Your task to perform on an android device: Search for "logitech g pro" on amazon.com, select the first entry, add it to the cart, then select checkout. Image 0: 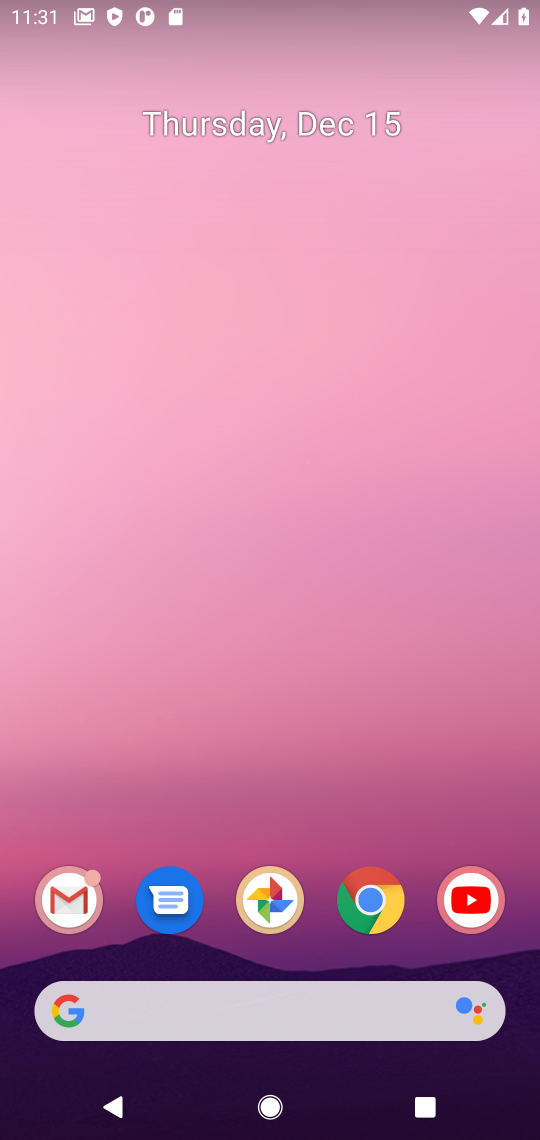
Step 0: click (375, 890)
Your task to perform on an android device: Search for "logitech g pro" on amazon.com, select the first entry, add it to the cart, then select checkout. Image 1: 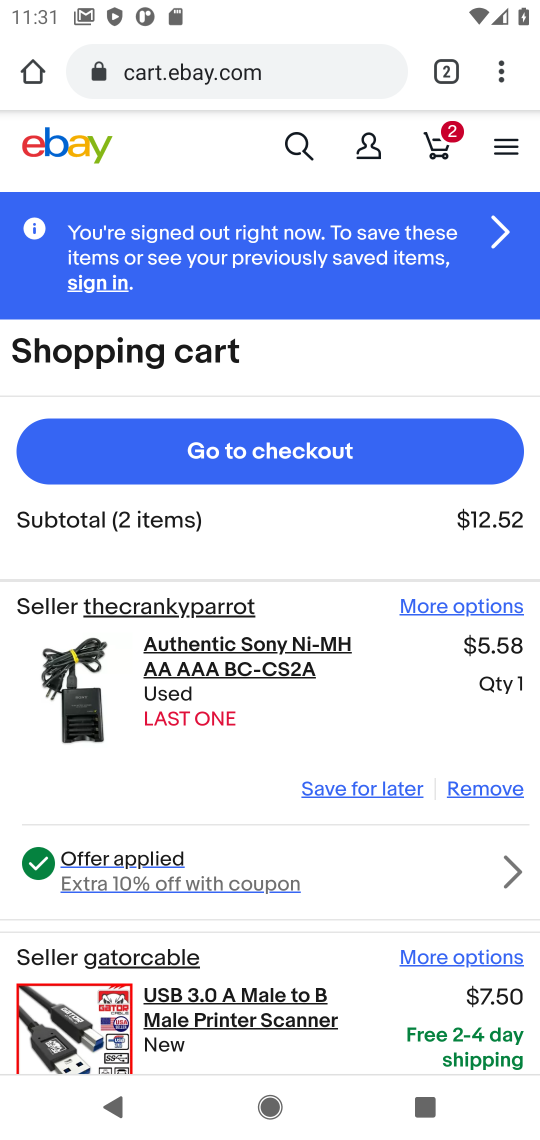
Step 1: click (307, 63)
Your task to perform on an android device: Search for "logitech g pro" on amazon.com, select the first entry, add it to the cart, then select checkout. Image 2: 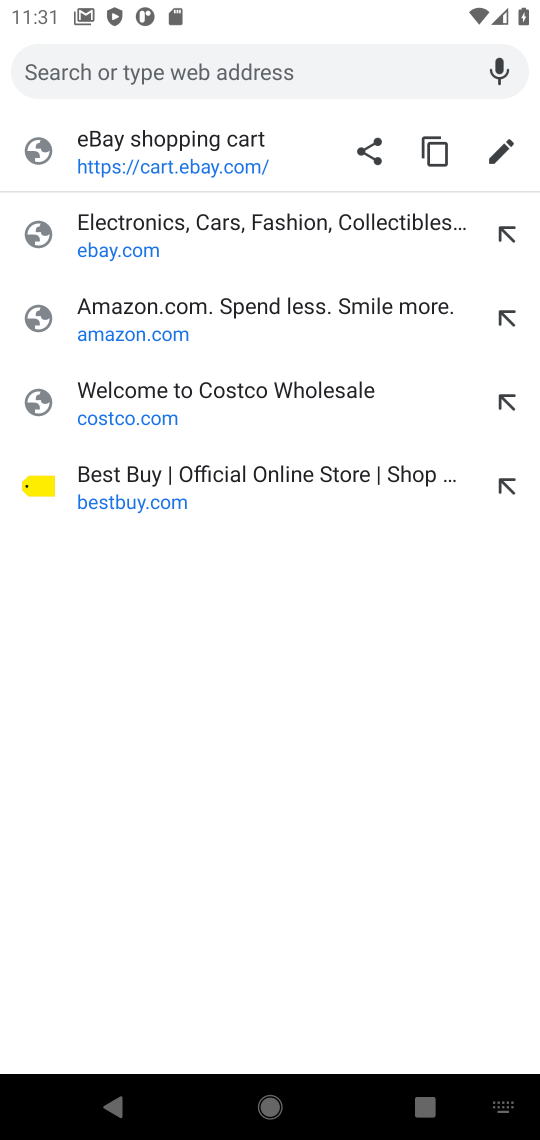
Step 2: click (181, 296)
Your task to perform on an android device: Search for "logitech g pro" on amazon.com, select the first entry, add it to the cart, then select checkout. Image 3: 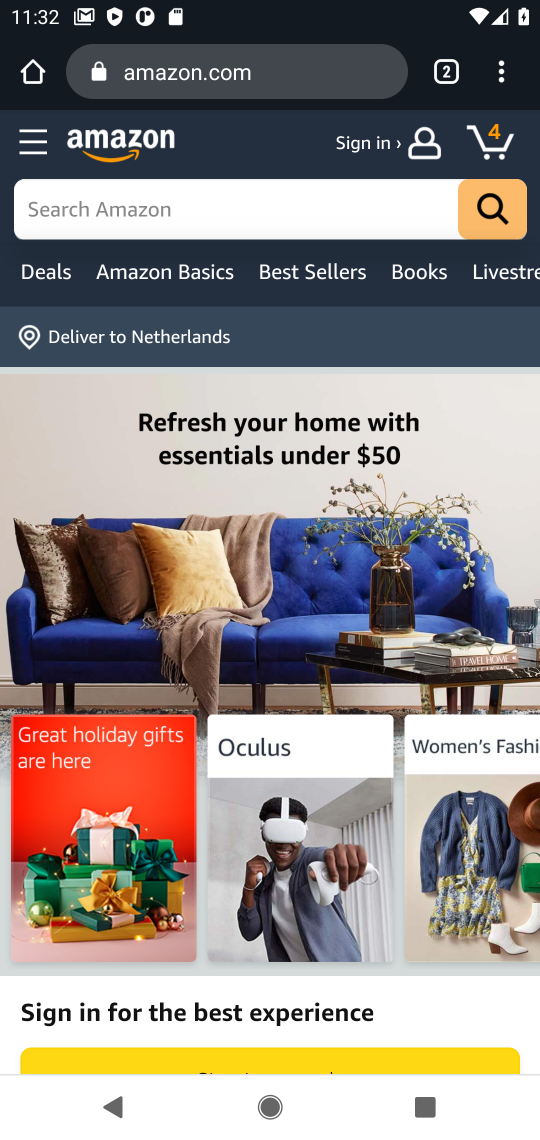
Step 3: click (353, 197)
Your task to perform on an android device: Search for "logitech g pro" on amazon.com, select the first entry, add it to the cart, then select checkout. Image 4: 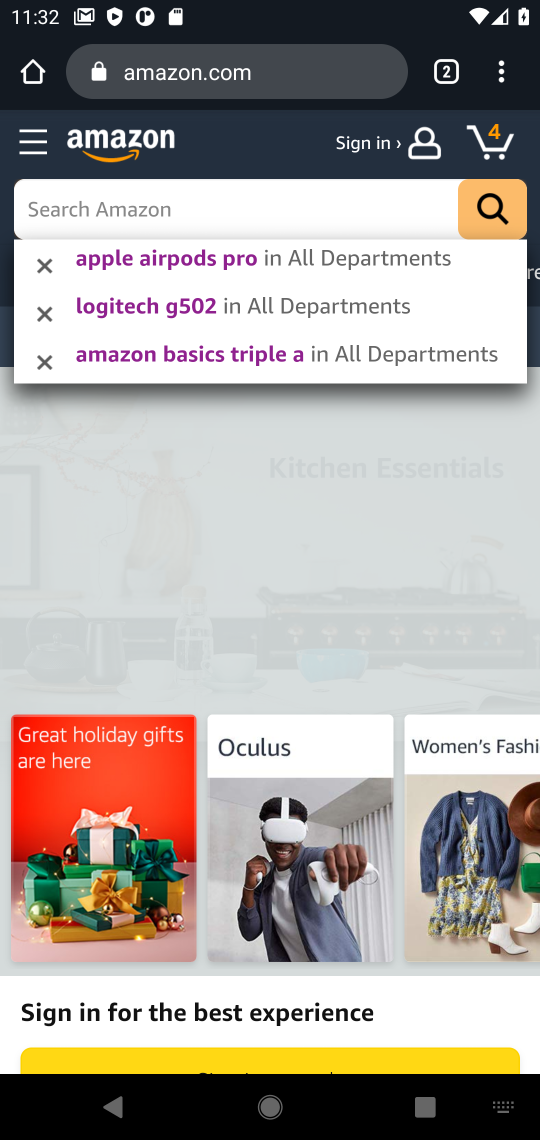
Step 4: type "logitech g pro"
Your task to perform on an android device: Search for "logitech g pro" on amazon.com, select the first entry, add it to the cart, then select checkout. Image 5: 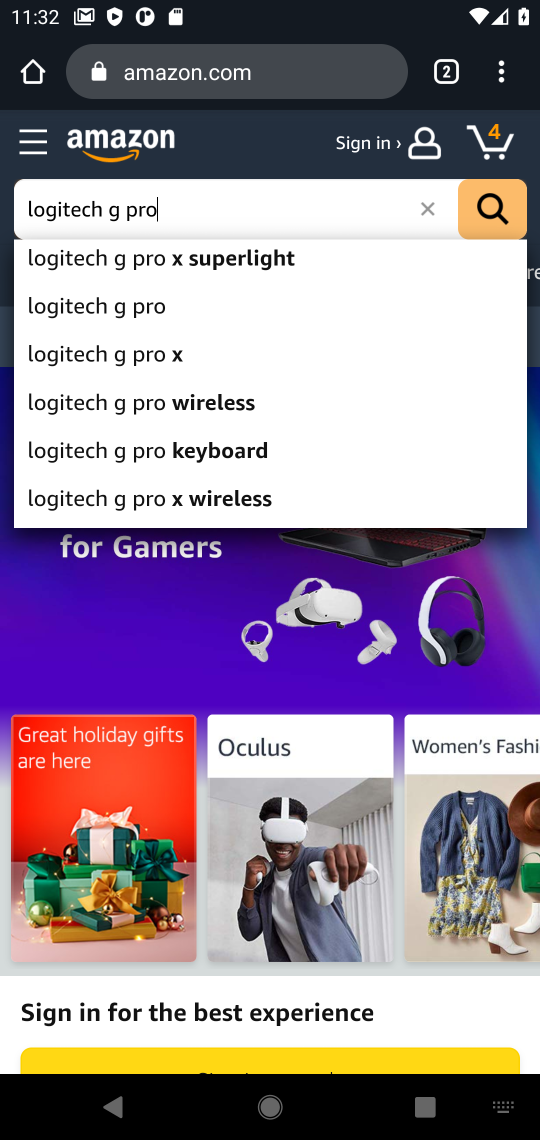
Step 5: click (150, 301)
Your task to perform on an android device: Search for "logitech g pro" on amazon.com, select the first entry, add it to the cart, then select checkout. Image 6: 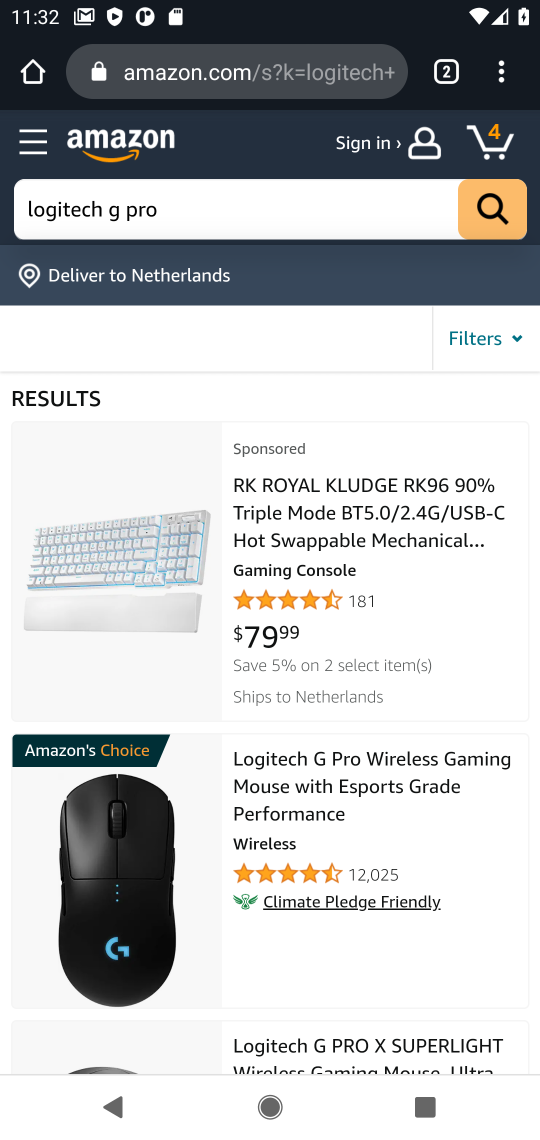
Step 6: click (126, 862)
Your task to perform on an android device: Search for "logitech g pro" on amazon.com, select the first entry, add it to the cart, then select checkout. Image 7: 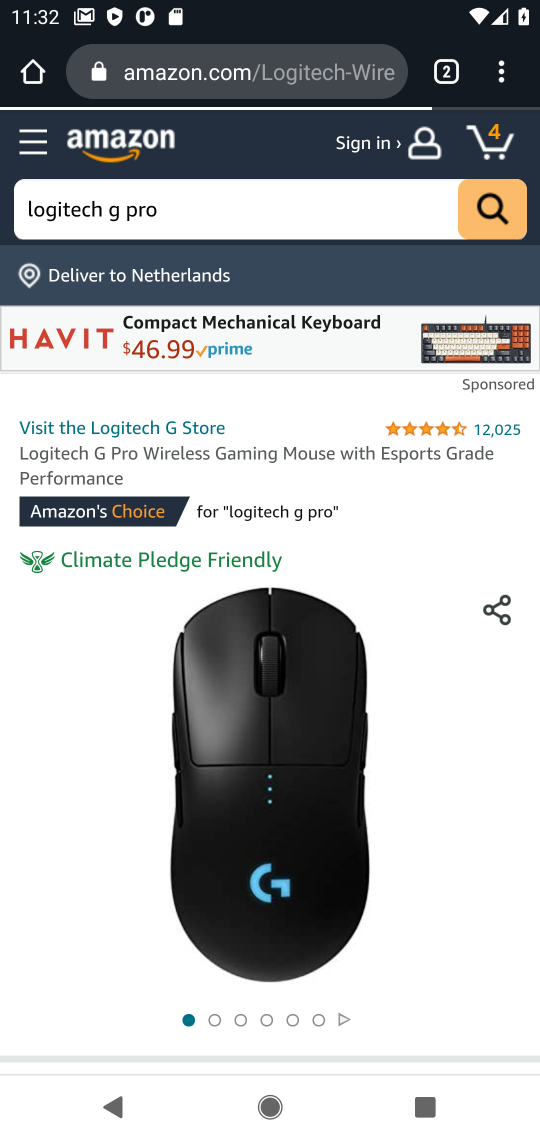
Step 7: drag from (452, 827) to (475, 649)
Your task to perform on an android device: Search for "logitech g pro" on amazon.com, select the first entry, add it to the cart, then select checkout. Image 8: 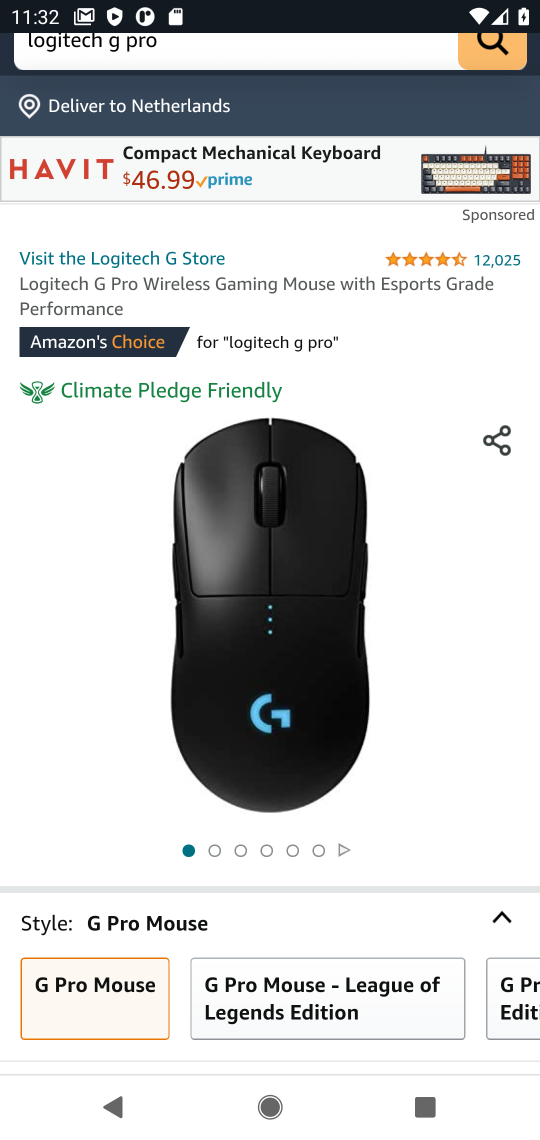
Step 8: drag from (470, 682) to (397, 296)
Your task to perform on an android device: Search for "logitech g pro" on amazon.com, select the first entry, add it to the cart, then select checkout. Image 9: 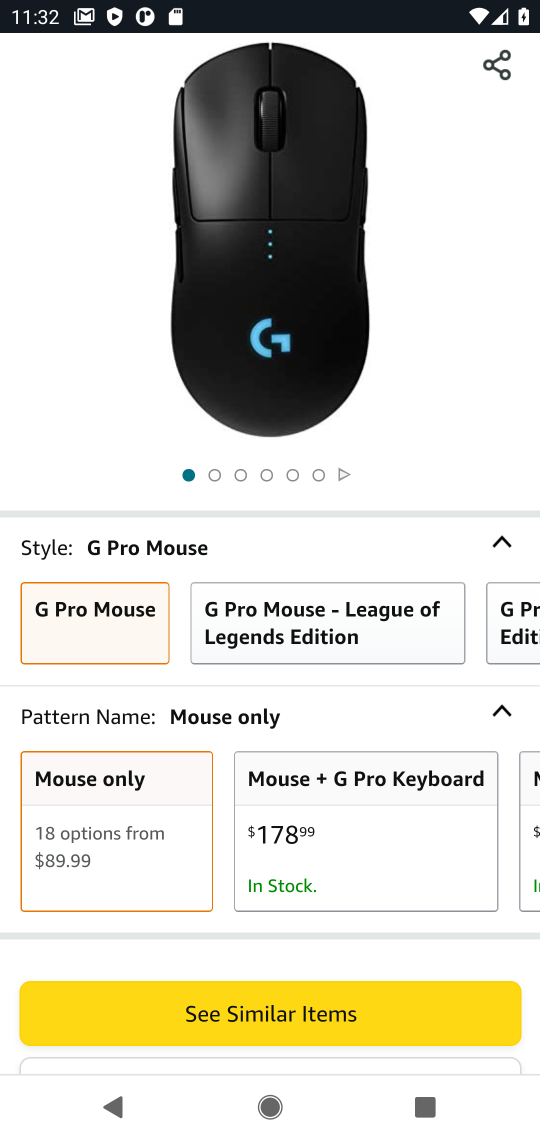
Step 9: drag from (376, 468) to (336, 127)
Your task to perform on an android device: Search for "logitech g pro" on amazon.com, select the first entry, add it to the cart, then select checkout. Image 10: 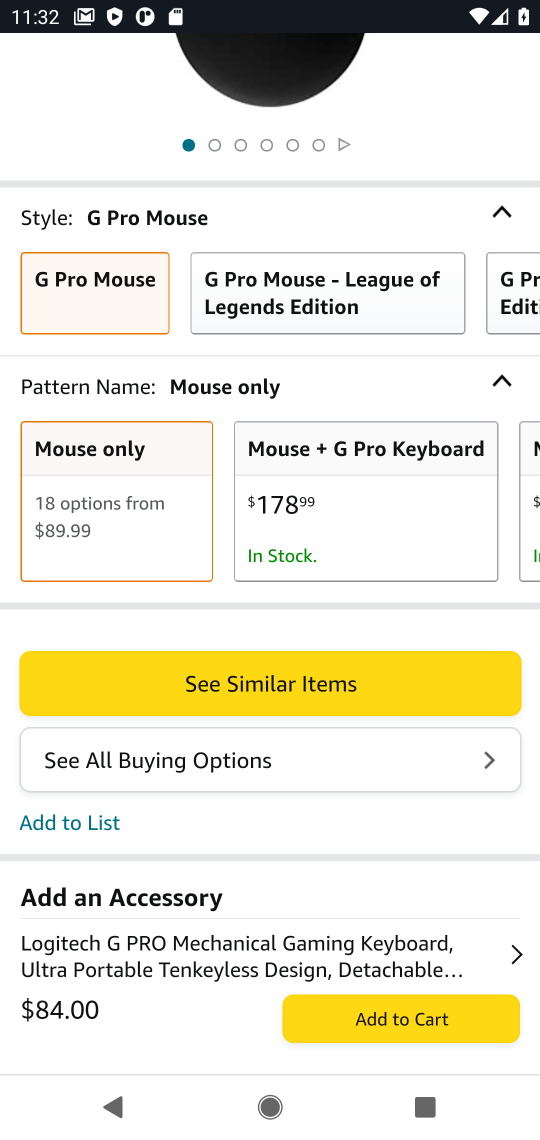
Step 10: press back button
Your task to perform on an android device: Search for "logitech g pro" on amazon.com, select the first entry, add it to the cart, then select checkout. Image 11: 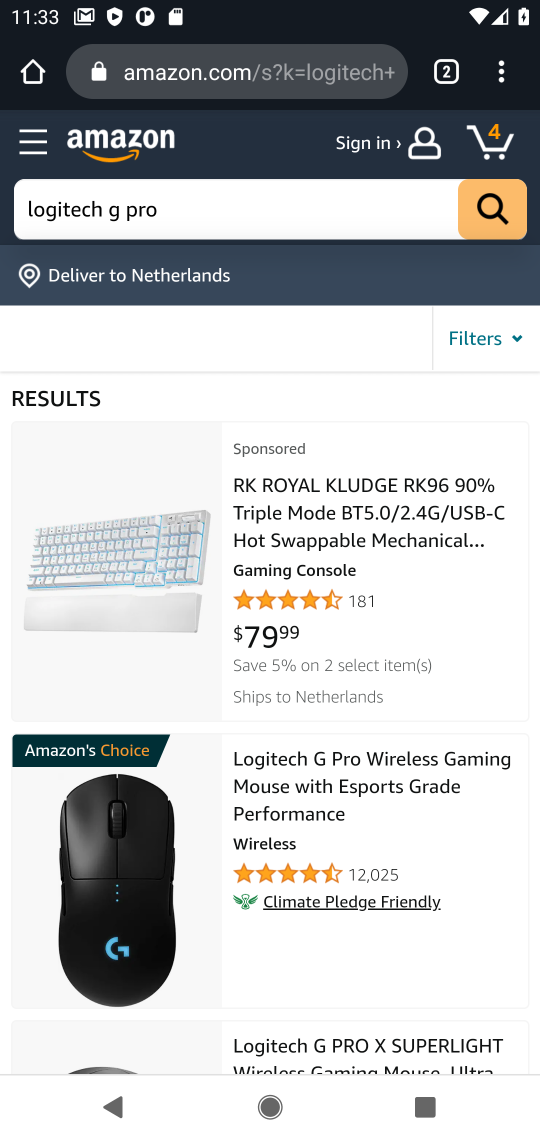
Step 11: drag from (422, 975) to (446, 601)
Your task to perform on an android device: Search for "logitech g pro" on amazon.com, select the first entry, add it to the cart, then select checkout. Image 12: 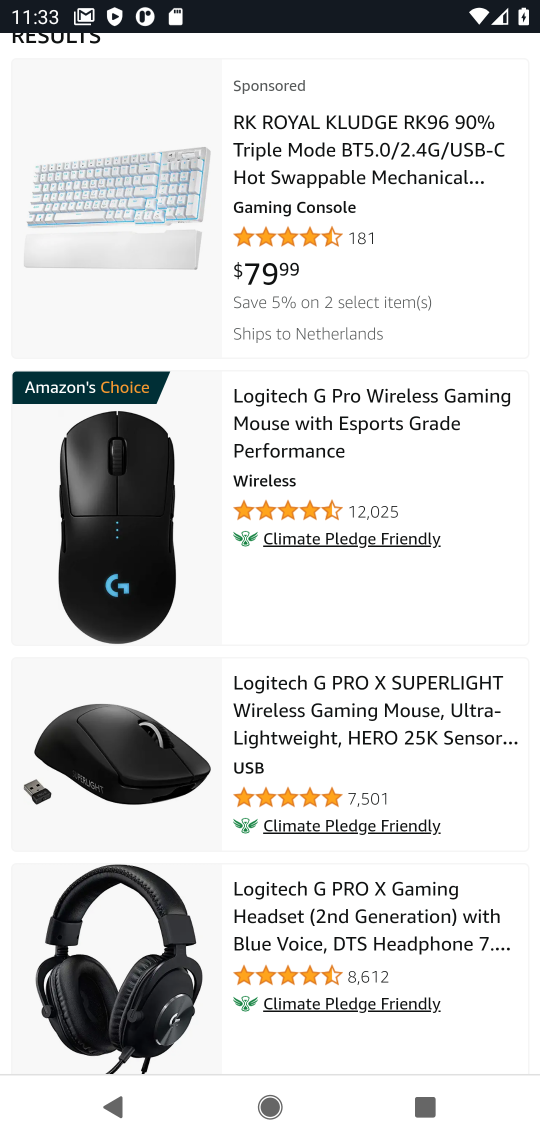
Step 12: click (119, 758)
Your task to perform on an android device: Search for "logitech g pro" on amazon.com, select the first entry, add it to the cart, then select checkout. Image 13: 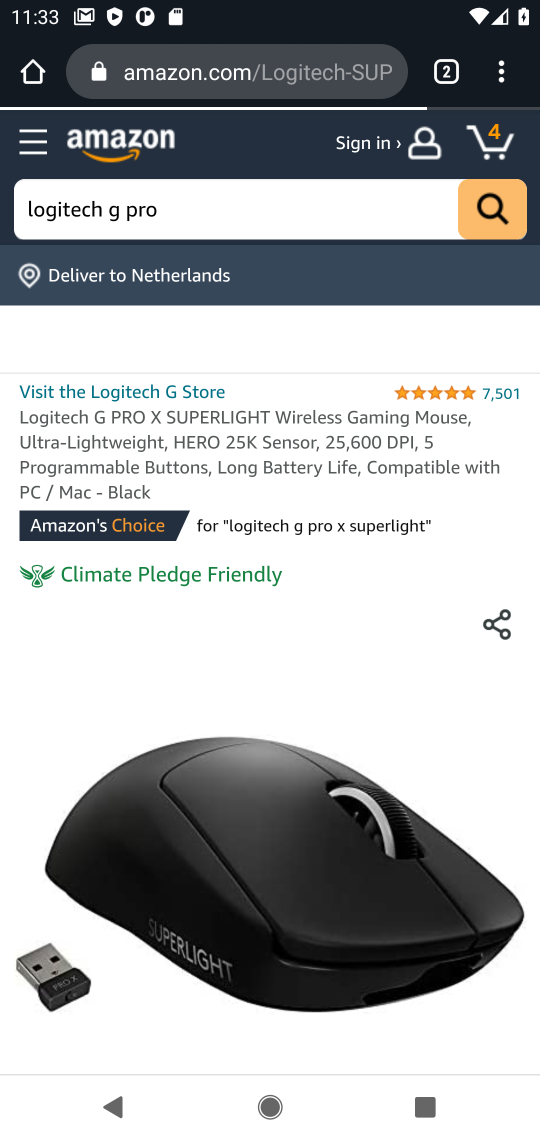
Step 13: drag from (479, 787) to (458, 351)
Your task to perform on an android device: Search for "logitech g pro" on amazon.com, select the first entry, add it to the cart, then select checkout. Image 14: 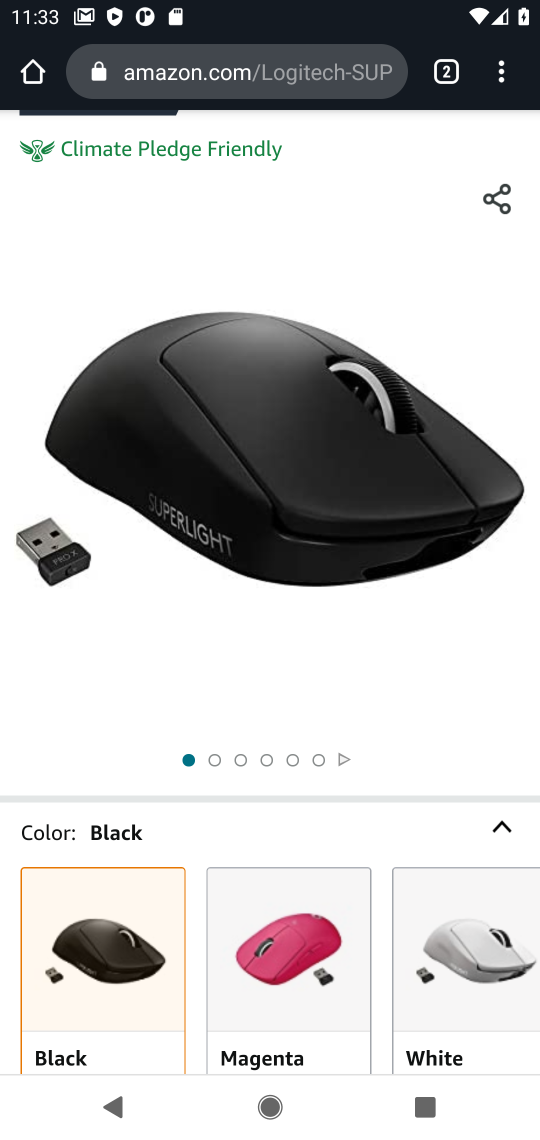
Step 14: drag from (439, 758) to (361, 381)
Your task to perform on an android device: Search for "logitech g pro" on amazon.com, select the first entry, add it to the cart, then select checkout. Image 15: 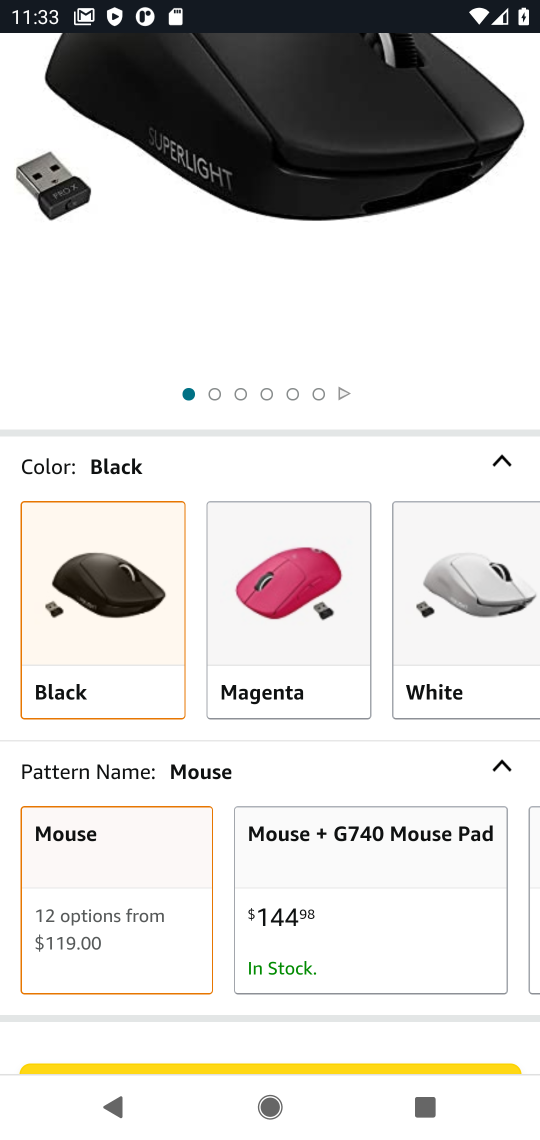
Step 15: drag from (287, 756) to (239, 446)
Your task to perform on an android device: Search for "logitech g pro" on amazon.com, select the first entry, add it to the cart, then select checkout. Image 16: 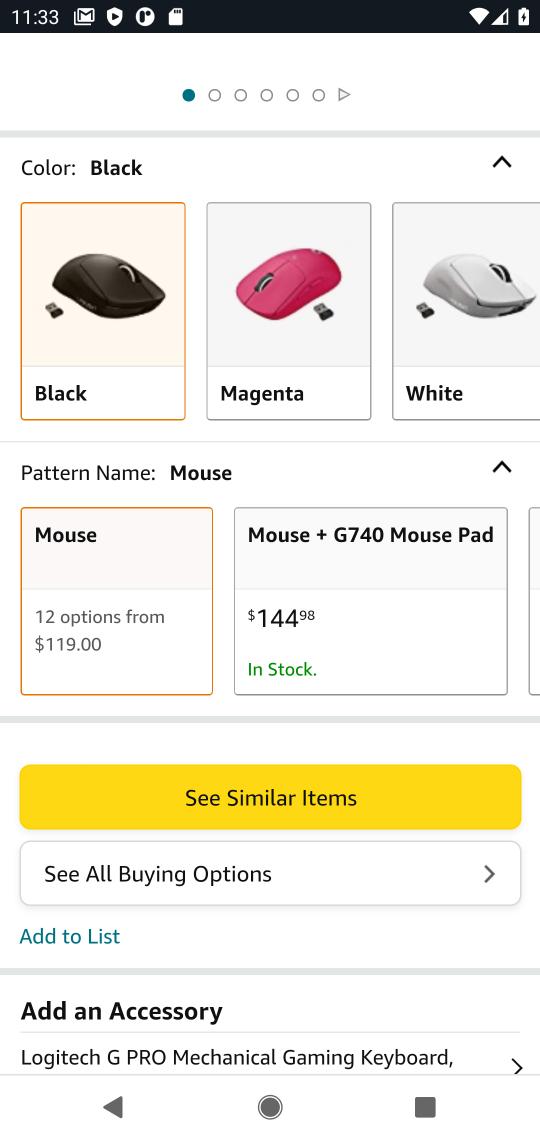
Step 16: press back button
Your task to perform on an android device: Search for "logitech g pro" on amazon.com, select the first entry, add it to the cart, then select checkout. Image 17: 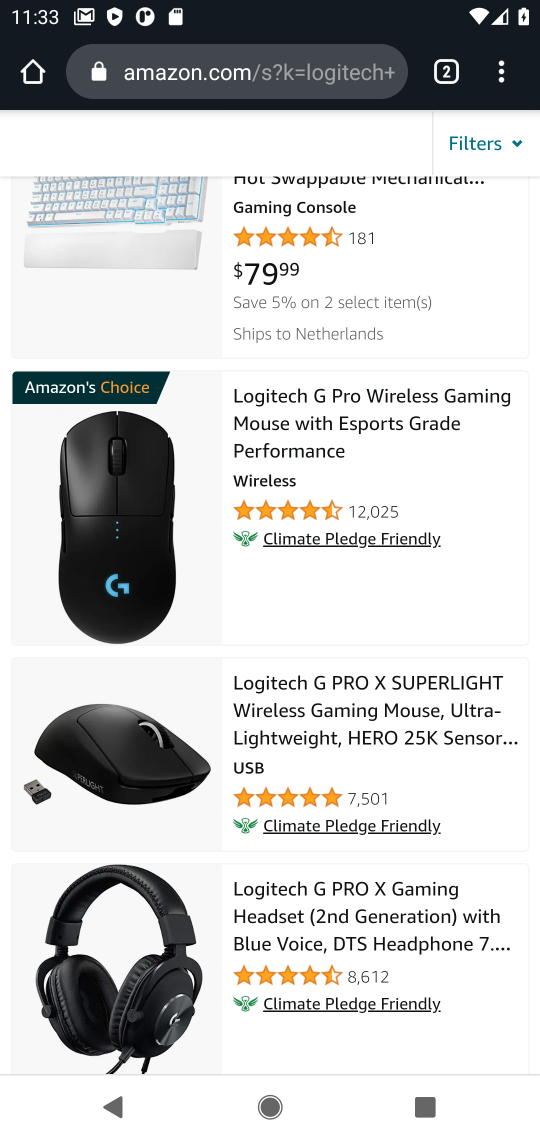
Step 17: click (135, 940)
Your task to perform on an android device: Search for "logitech g pro" on amazon.com, select the first entry, add it to the cart, then select checkout. Image 18: 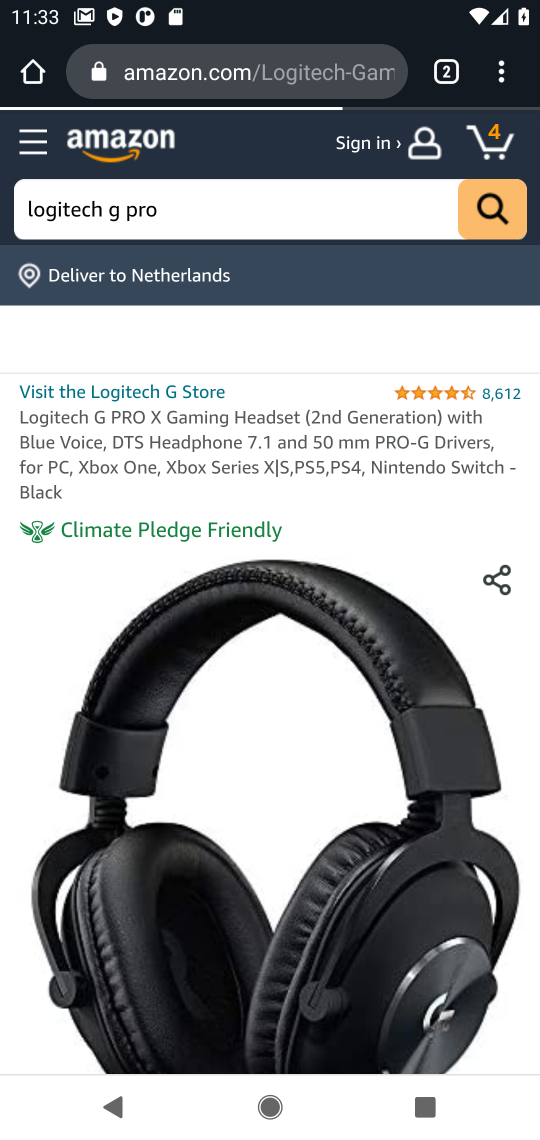
Step 18: drag from (372, 828) to (324, 473)
Your task to perform on an android device: Search for "logitech g pro" on amazon.com, select the first entry, add it to the cart, then select checkout. Image 19: 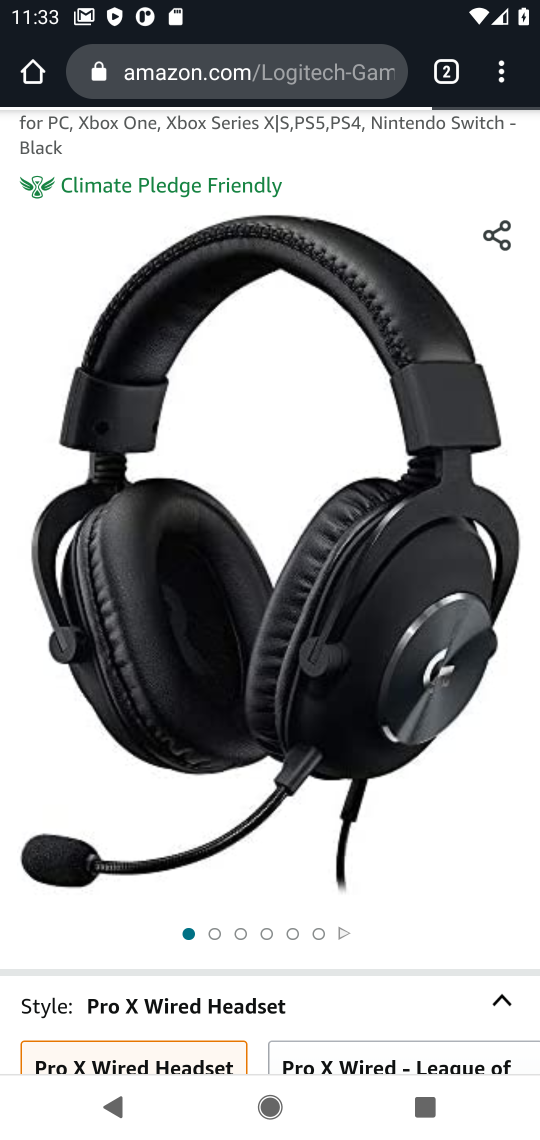
Step 19: drag from (354, 813) to (247, 424)
Your task to perform on an android device: Search for "logitech g pro" on amazon.com, select the first entry, add it to the cart, then select checkout. Image 20: 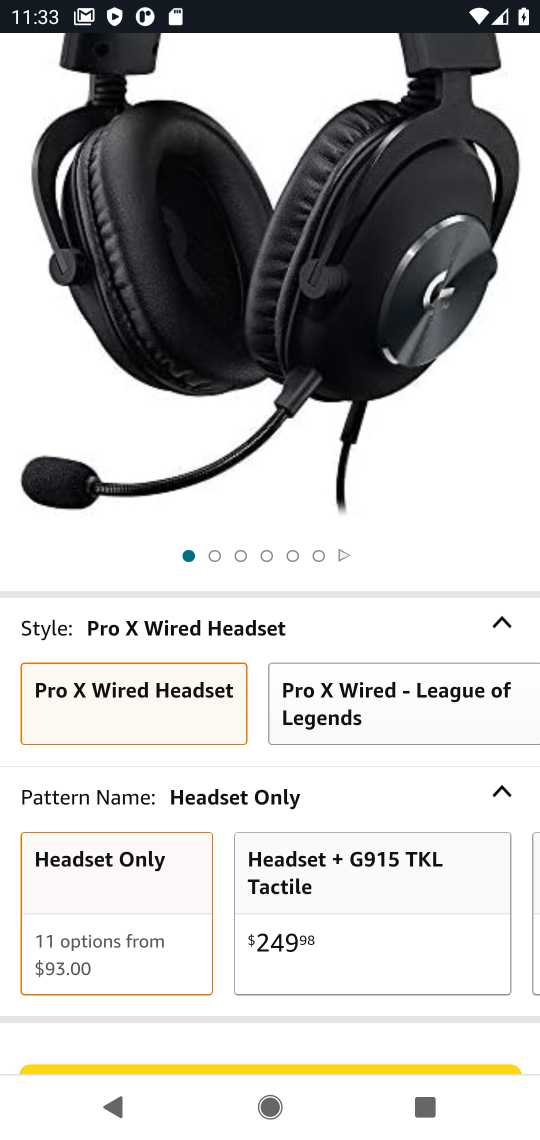
Step 20: drag from (327, 1018) to (254, 646)
Your task to perform on an android device: Search for "logitech g pro" on amazon.com, select the first entry, add it to the cart, then select checkout. Image 21: 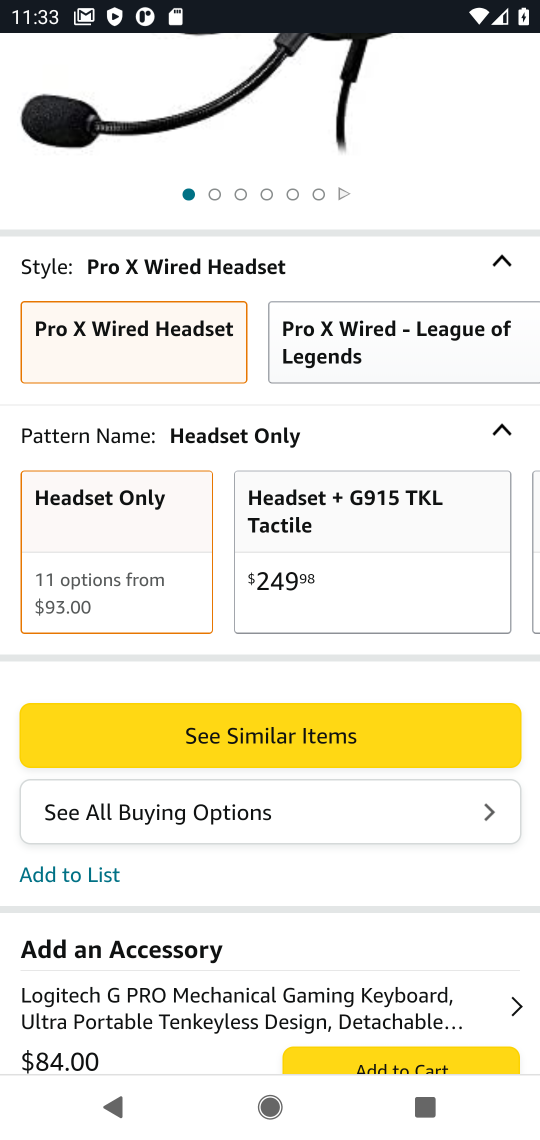
Step 21: press back button
Your task to perform on an android device: Search for "logitech g pro" on amazon.com, select the first entry, add it to the cart, then select checkout. Image 22: 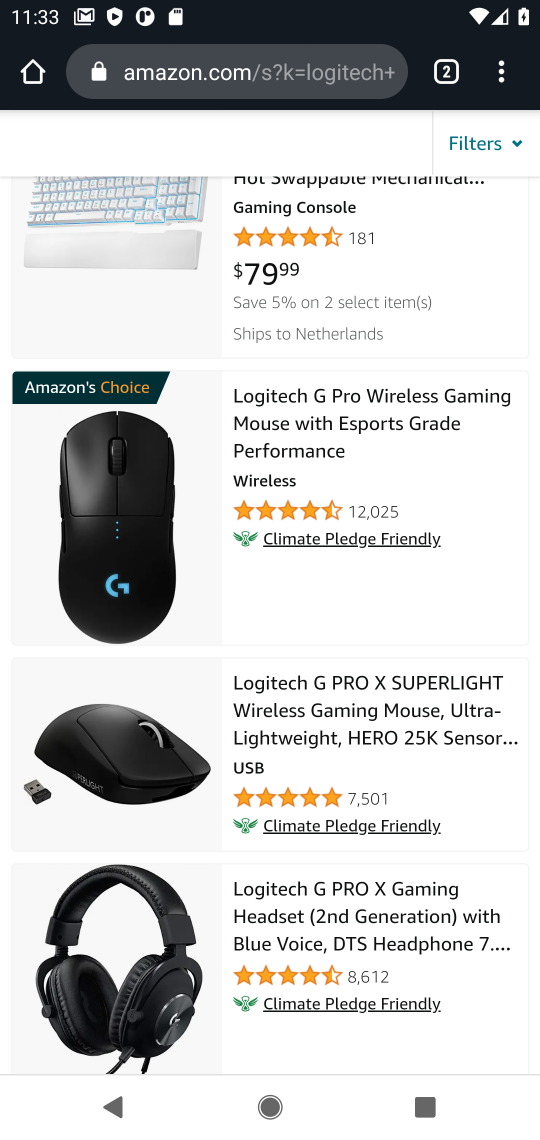
Step 22: drag from (376, 923) to (316, 436)
Your task to perform on an android device: Search for "logitech g pro" on amazon.com, select the first entry, add it to the cart, then select checkout. Image 23: 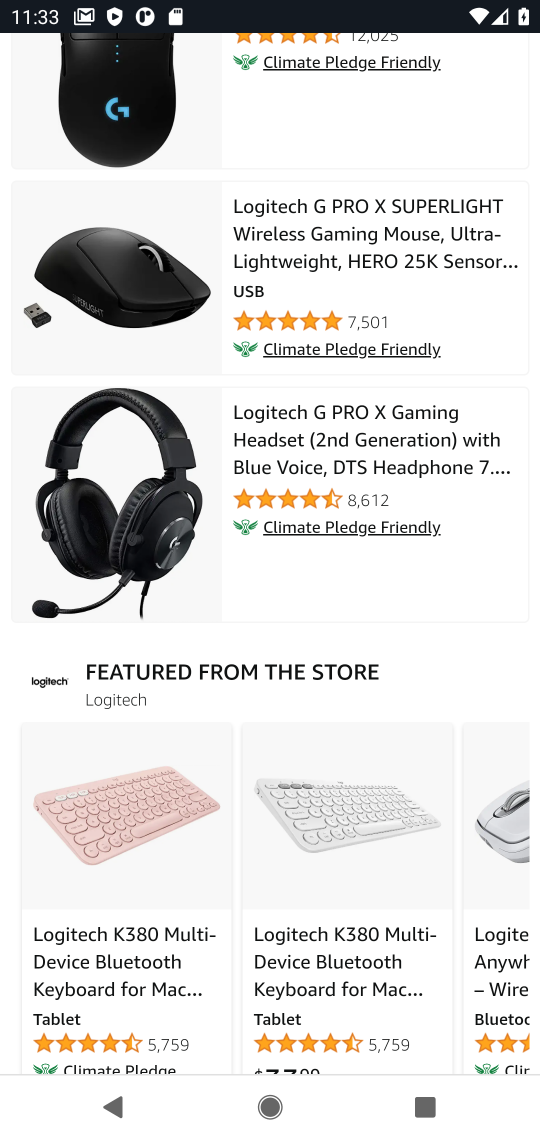
Step 23: drag from (435, 674) to (418, 402)
Your task to perform on an android device: Search for "logitech g pro" on amazon.com, select the first entry, add it to the cart, then select checkout. Image 24: 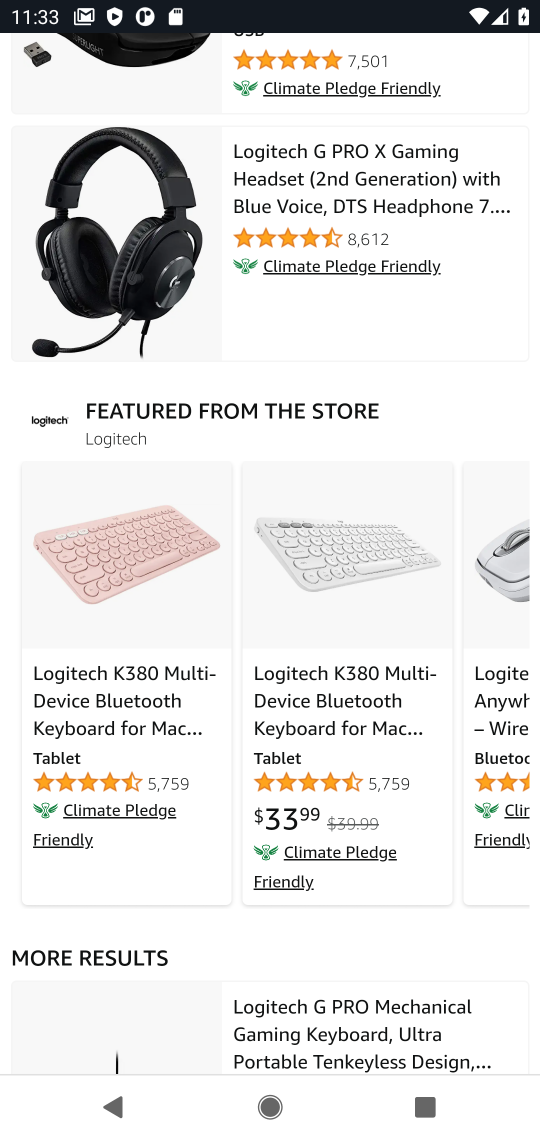
Step 24: drag from (476, 981) to (424, 648)
Your task to perform on an android device: Search for "logitech g pro" on amazon.com, select the first entry, add it to the cart, then select checkout. Image 25: 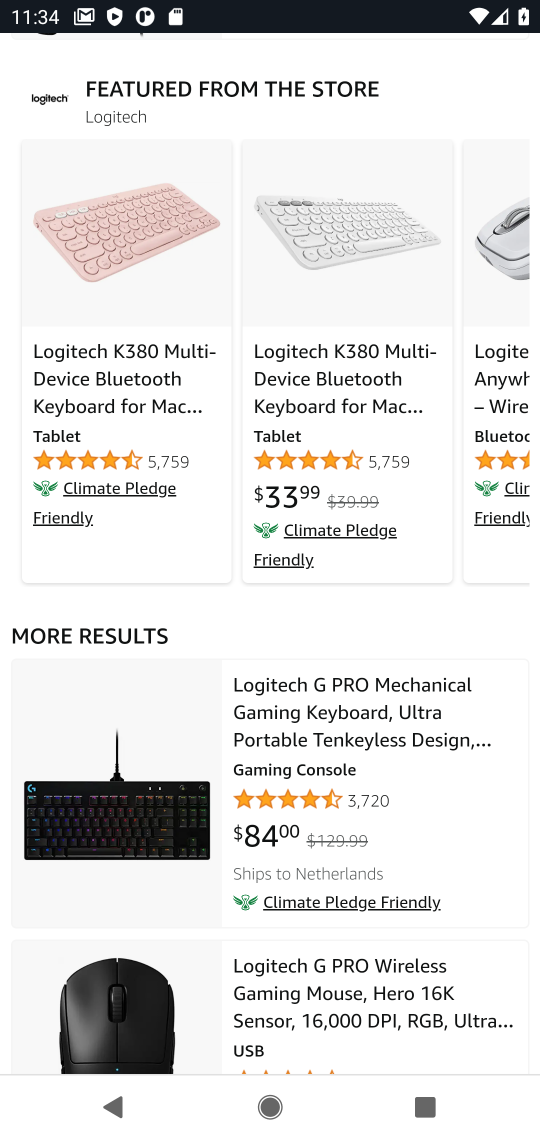
Step 25: click (117, 817)
Your task to perform on an android device: Search for "logitech g pro" on amazon.com, select the first entry, add it to the cart, then select checkout. Image 26: 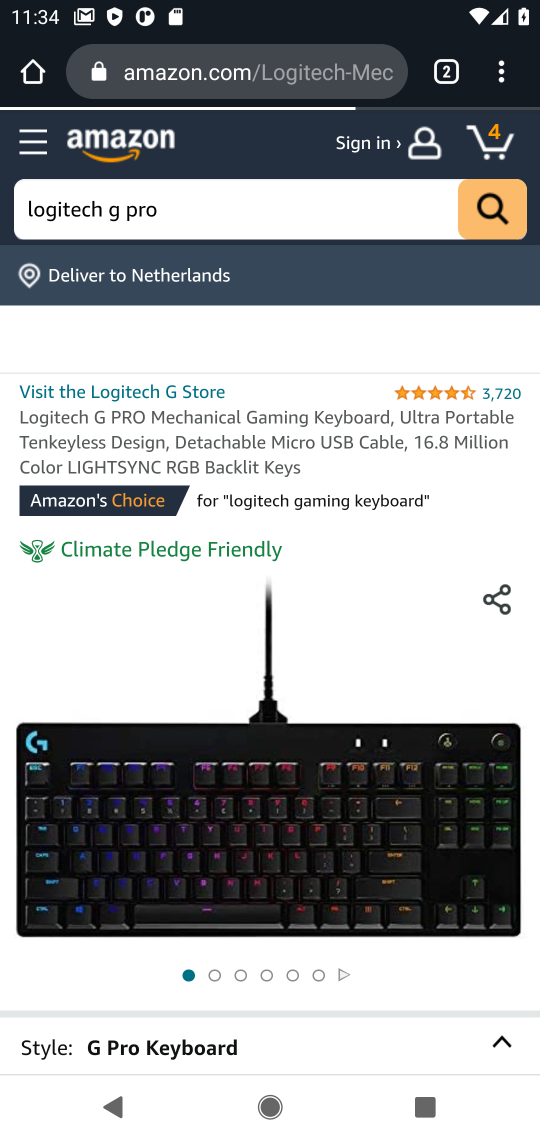
Step 26: drag from (415, 764) to (301, 397)
Your task to perform on an android device: Search for "logitech g pro" on amazon.com, select the first entry, add it to the cart, then select checkout. Image 27: 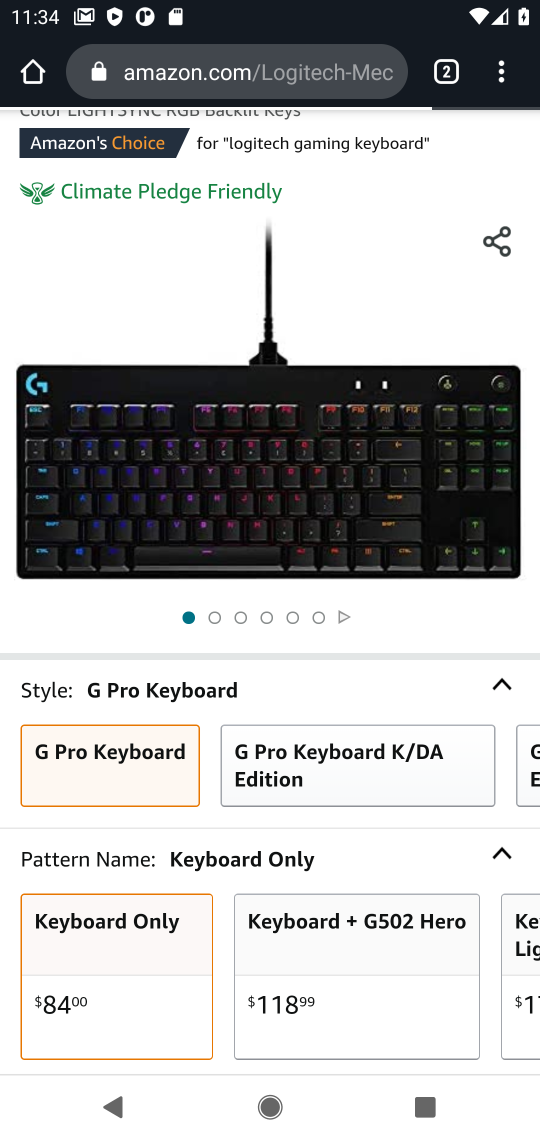
Step 27: drag from (401, 833) to (271, 355)
Your task to perform on an android device: Search for "logitech g pro" on amazon.com, select the first entry, add it to the cart, then select checkout. Image 28: 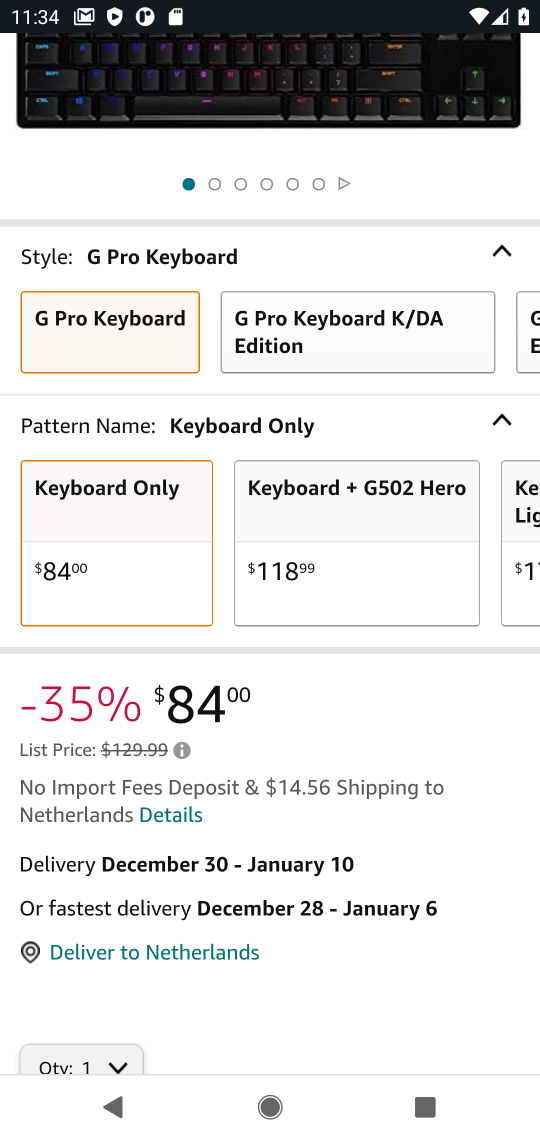
Step 28: drag from (388, 970) to (253, 623)
Your task to perform on an android device: Search for "logitech g pro" on amazon.com, select the first entry, add it to the cart, then select checkout. Image 29: 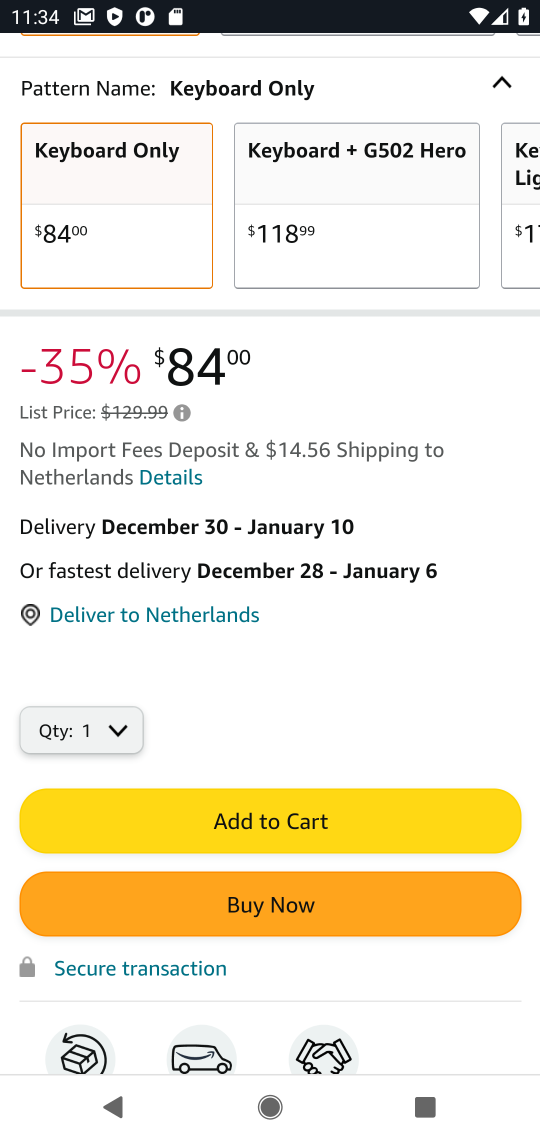
Step 29: click (266, 832)
Your task to perform on an android device: Search for "logitech g pro" on amazon.com, select the first entry, add it to the cart, then select checkout. Image 30: 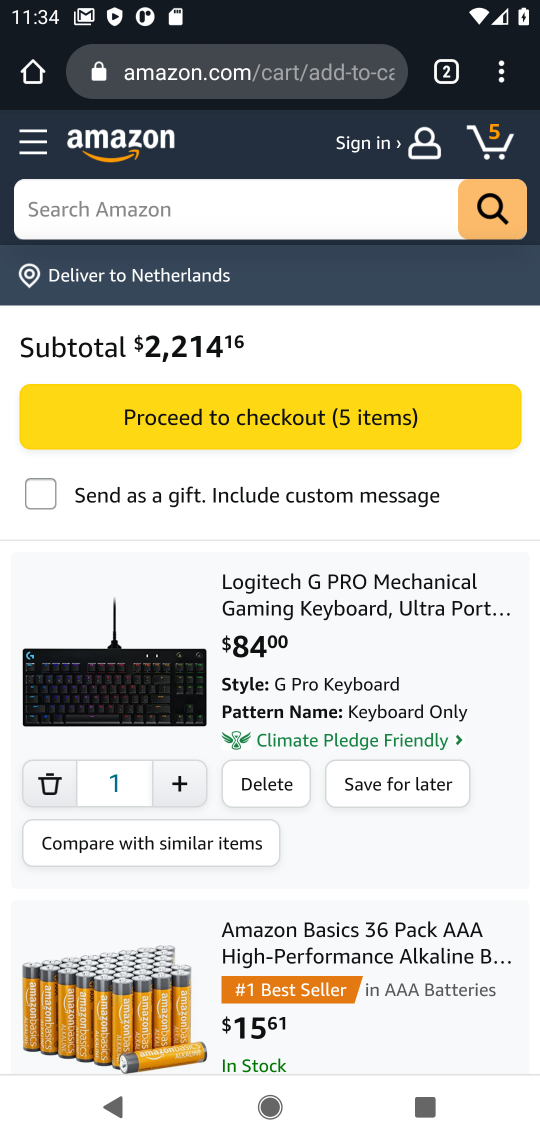
Step 30: click (306, 430)
Your task to perform on an android device: Search for "logitech g pro" on amazon.com, select the first entry, add it to the cart, then select checkout. Image 31: 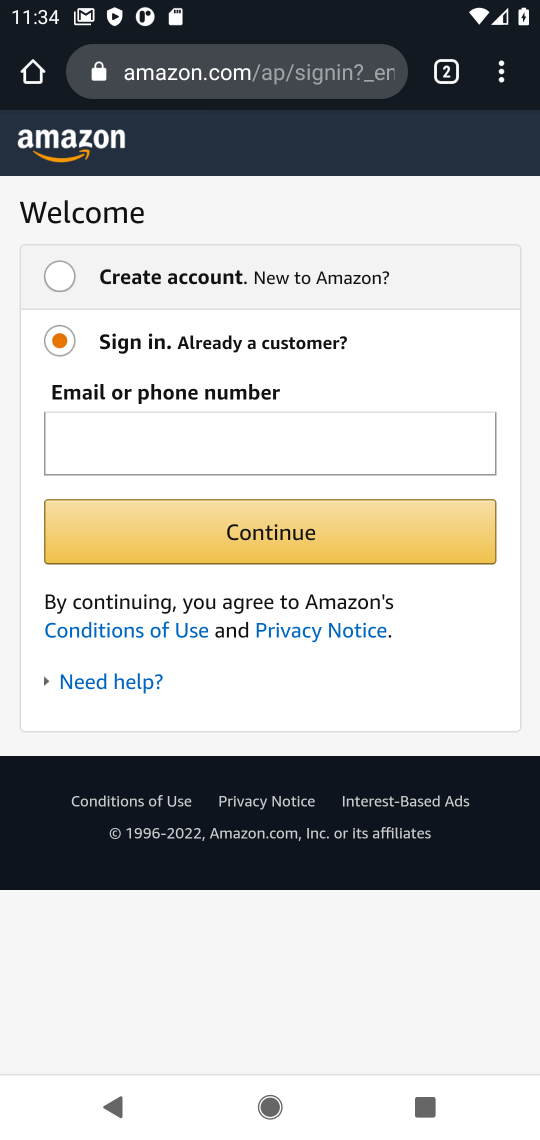
Step 31: task complete